Your task to perform on an android device: Open network settings Image 0: 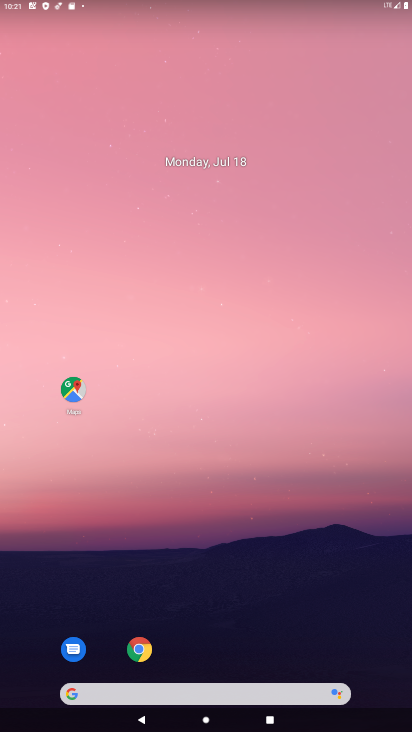
Step 0: drag from (159, 673) to (156, 8)
Your task to perform on an android device: Open network settings Image 1: 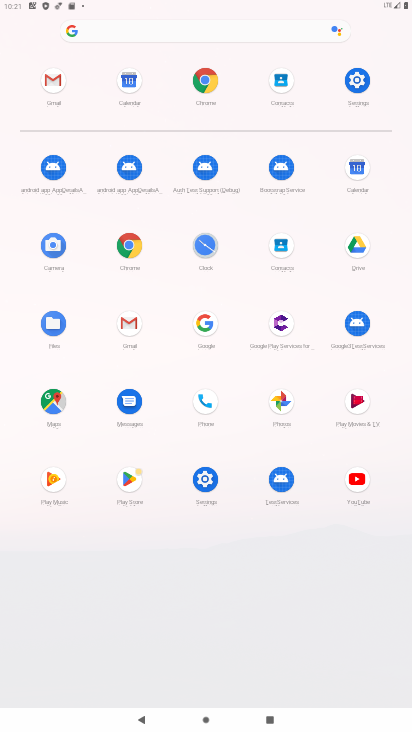
Step 1: click (362, 81)
Your task to perform on an android device: Open network settings Image 2: 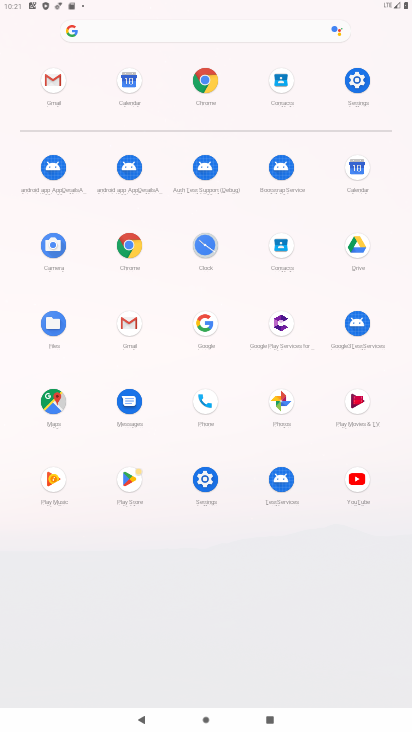
Step 2: click (362, 81)
Your task to perform on an android device: Open network settings Image 3: 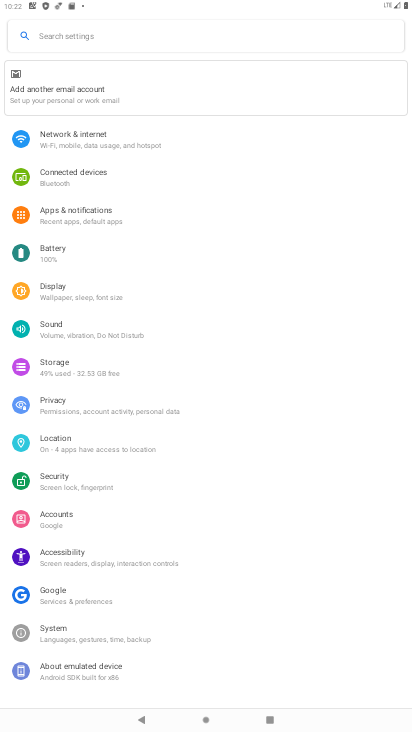
Step 3: click (111, 144)
Your task to perform on an android device: Open network settings Image 4: 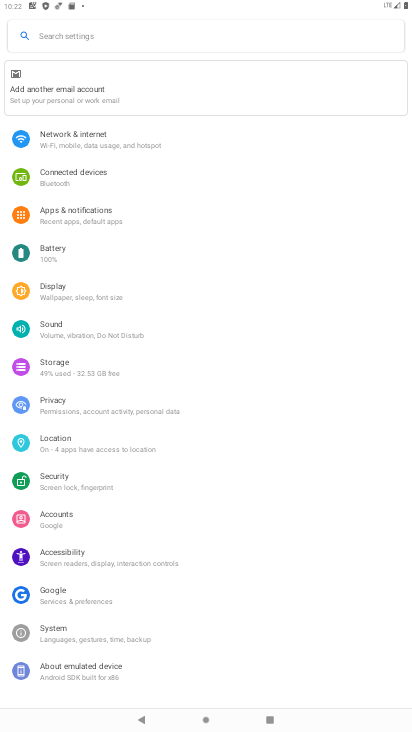
Step 4: click (111, 144)
Your task to perform on an android device: Open network settings Image 5: 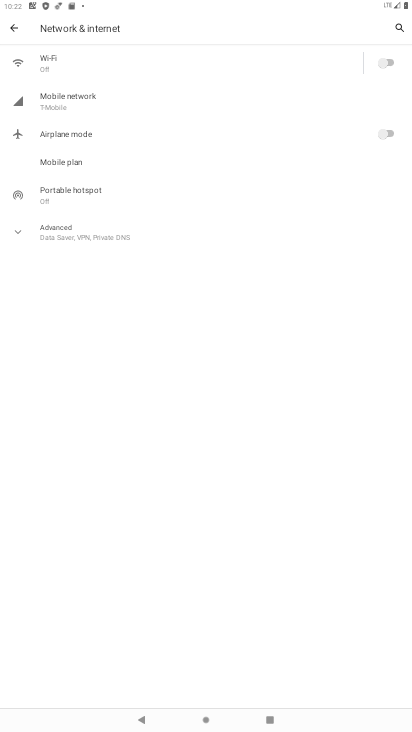
Step 5: task complete